Your task to perform on an android device: Do I have any events this weekend? Image 0: 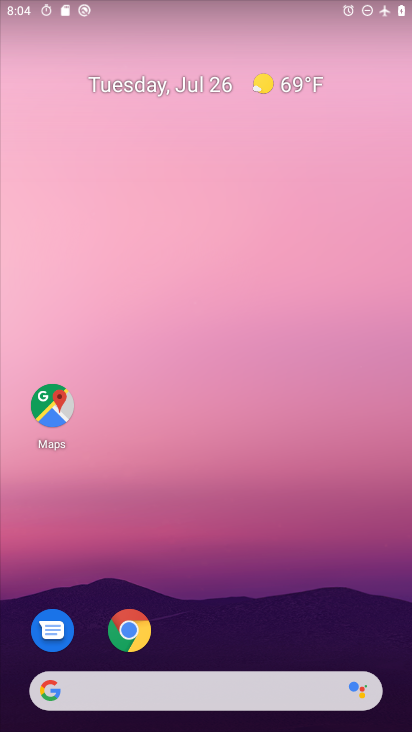
Step 0: drag from (277, 476) to (344, 29)
Your task to perform on an android device: Do I have any events this weekend? Image 1: 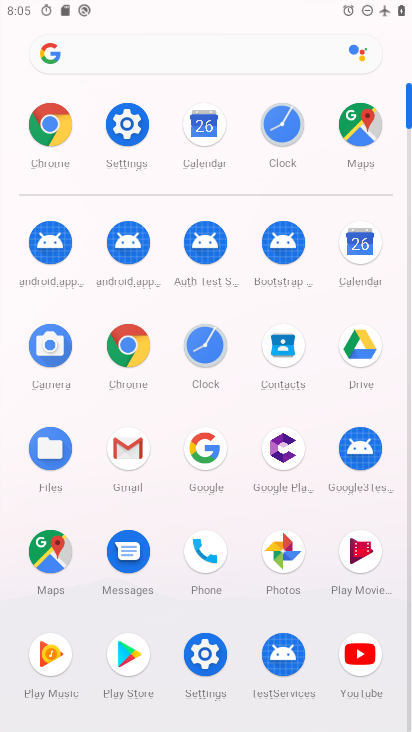
Step 1: click (369, 263)
Your task to perform on an android device: Do I have any events this weekend? Image 2: 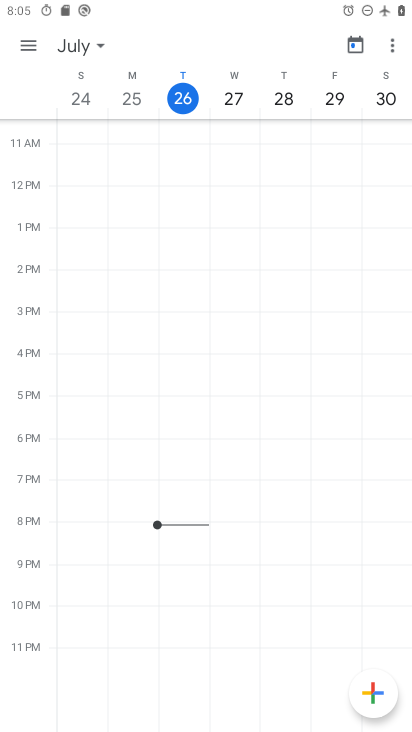
Step 2: task complete